Your task to perform on an android device: toggle improve location accuracy Image 0: 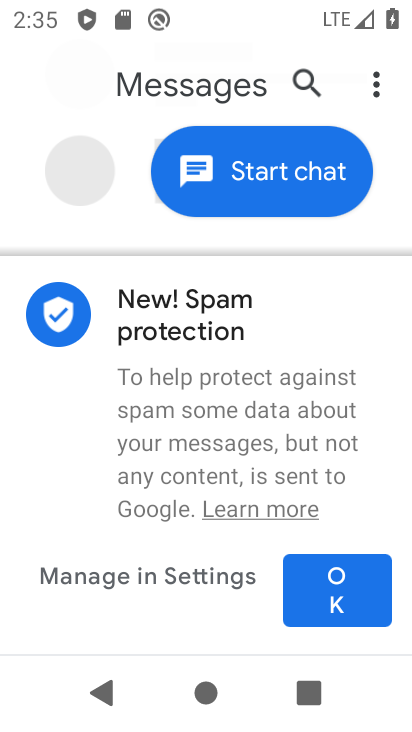
Step 0: press home button
Your task to perform on an android device: toggle improve location accuracy Image 1: 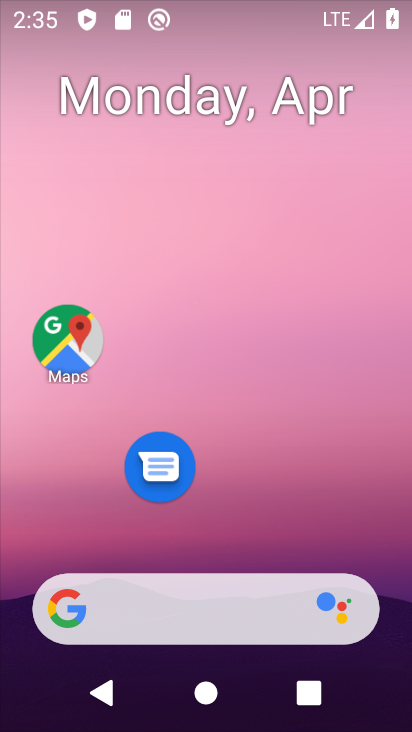
Step 1: drag from (259, 518) to (352, 85)
Your task to perform on an android device: toggle improve location accuracy Image 2: 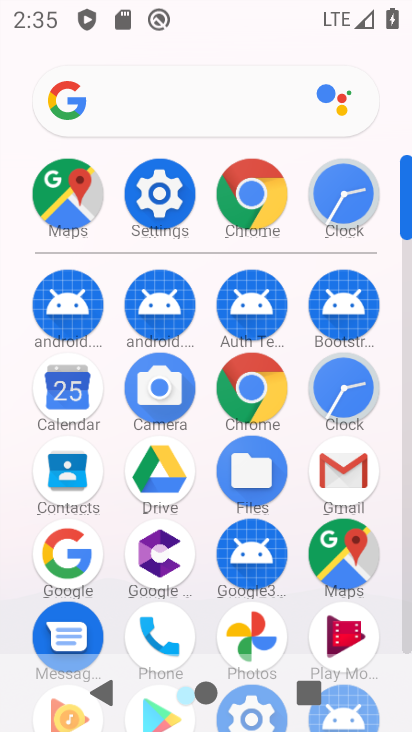
Step 2: click (161, 185)
Your task to perform on an android device: toggle improve location accuracy Image 3: 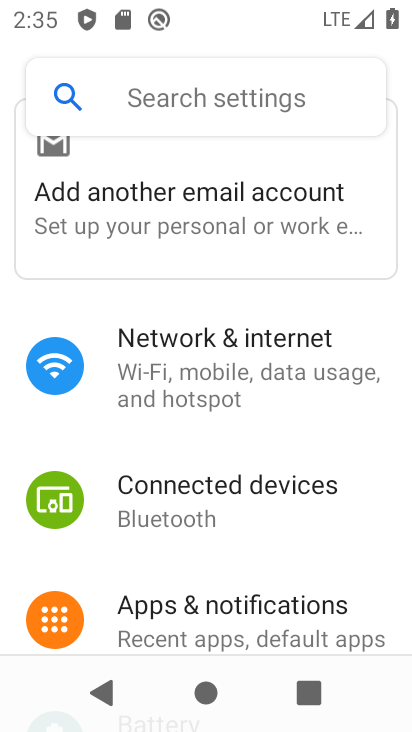
Step 3: drag from (182, 574) to (194, 338)
Your task to perform on an android device: toggle improve location accuracy Image 4: 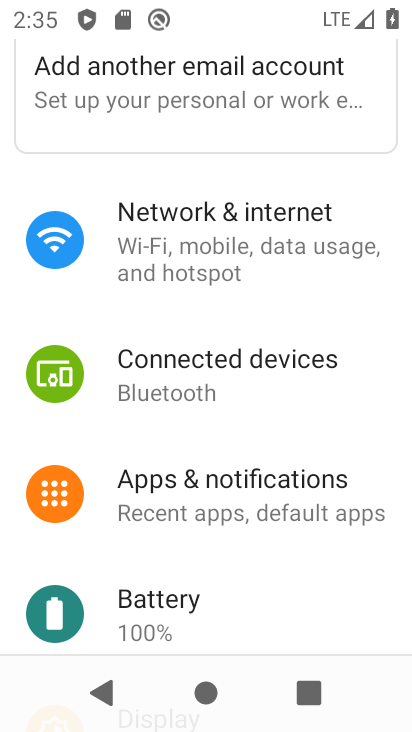
Step 4: drag from (244, 544) to (276, 341)
Your task to perform on an android device: toggle improve location accuracy Image 5: 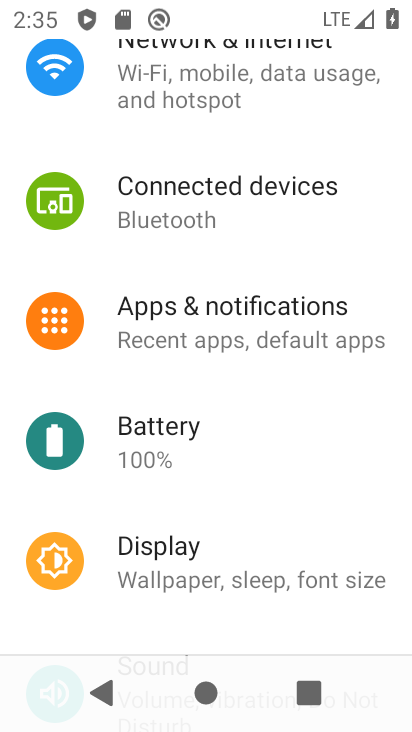
Step 5: drag from (276, 570) to (289, 371)
Your task to perform on an android device: toggle improve location accuracy Image 6: 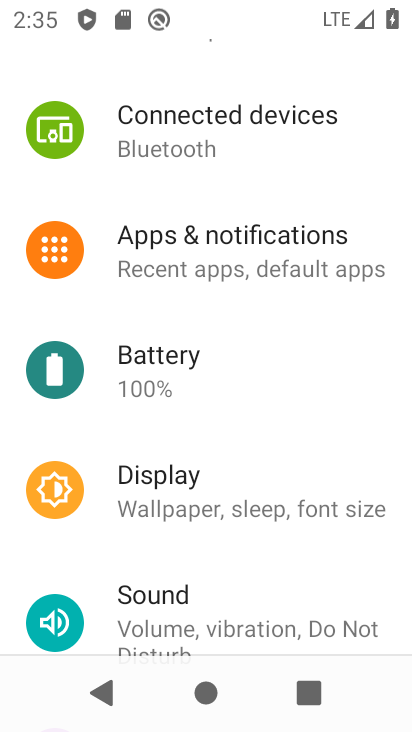
Step 6: drag from (269, 538) to (288, 323)
Your task to perform on an android device: toggle improve location accuracy Image 7: 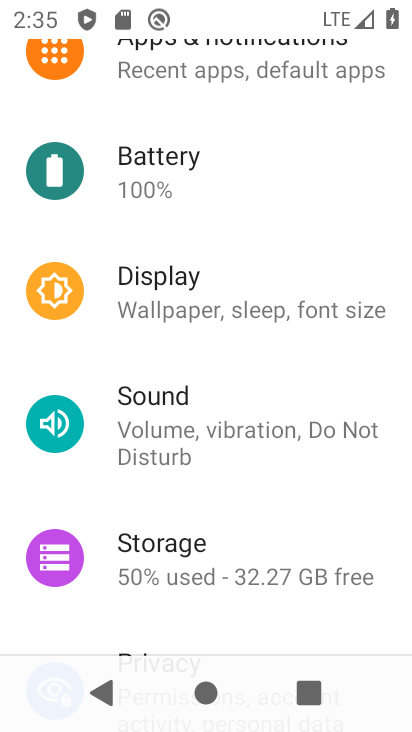
Step 7: drag from (291, 507) to (335, 361)
Your task to perform on an android device: toggle improve location accuracy Image 8: 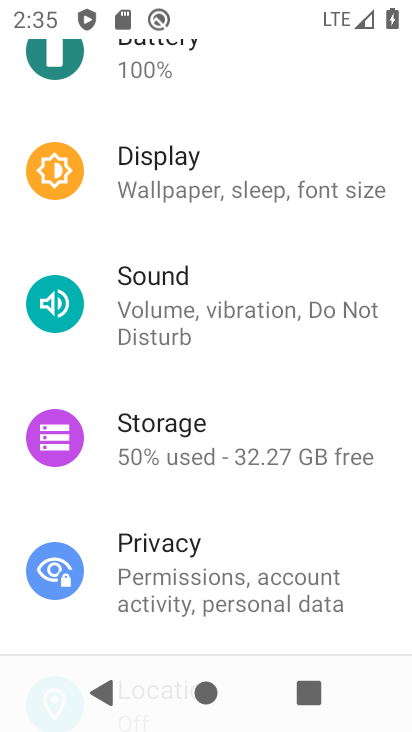
Step 8: drag from (331, 531) to (370, 347)
Your task to perform on an android device: toggle improve location accuracy Image 9: 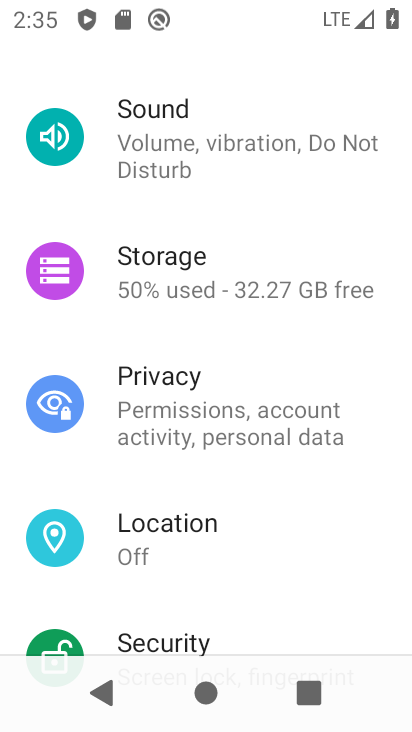
Step 9: click (337, 539)
Your task to perform on an android device: toggle improve location accuracy Image 10: 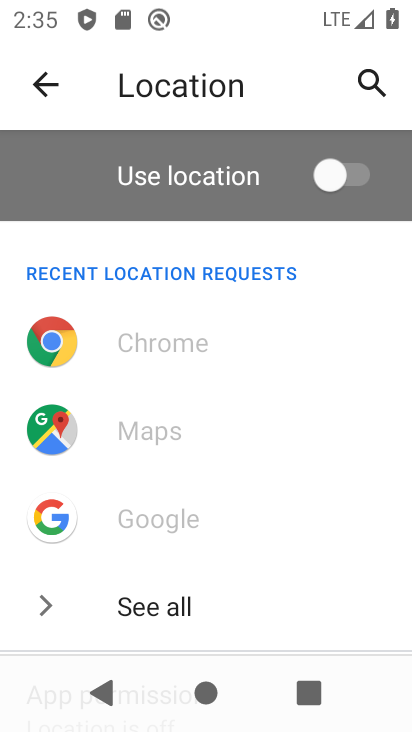
Step 10: drag from (337, 533) to (373, 258)
Your task to perform on an android device: toggle improve location accuracy Image 11: 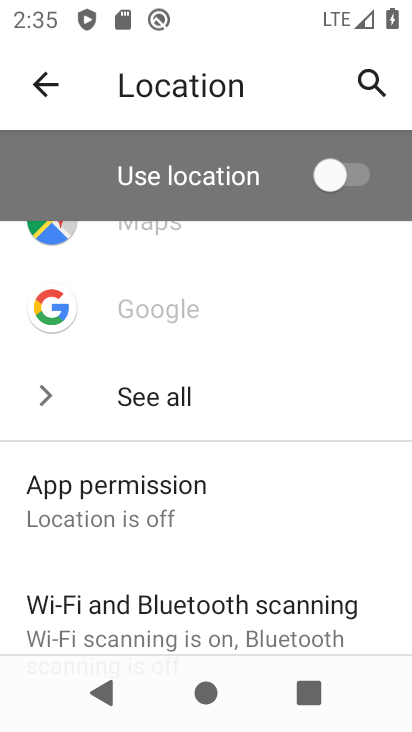
Step 11: drag from (282, 531) to (312, 263)
Your task to perform on an android device: toggle improve location accuracy Image 12: 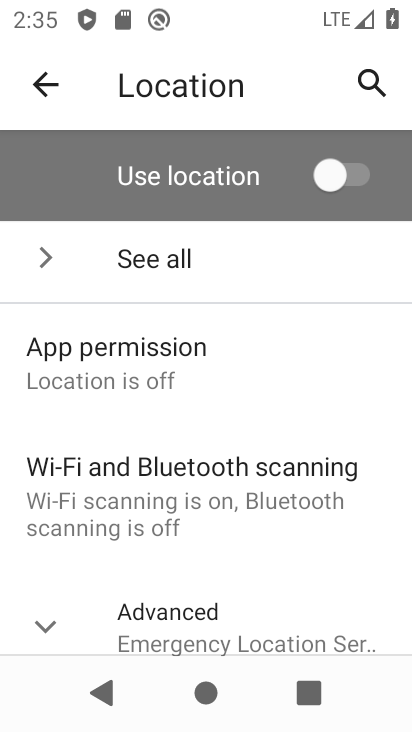
Step 12: click (223, 628)
Your task to perform on an android device: toggle improve location accuracy Image 13: 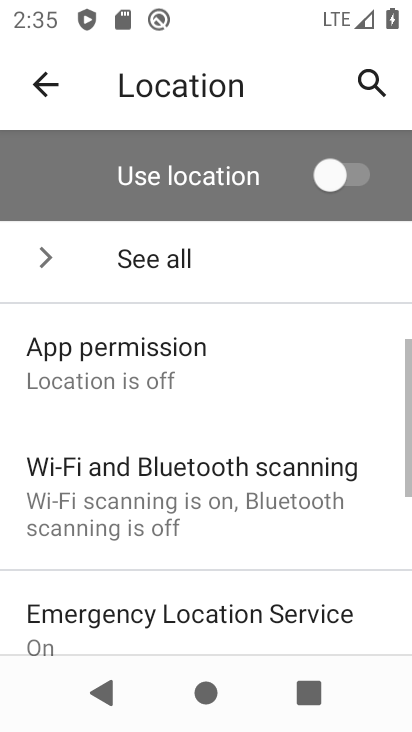
Step 13: drag from (226, 615) to (284, 356)
Your task to perform on an android device: toggle improve location accuracy Image 14: 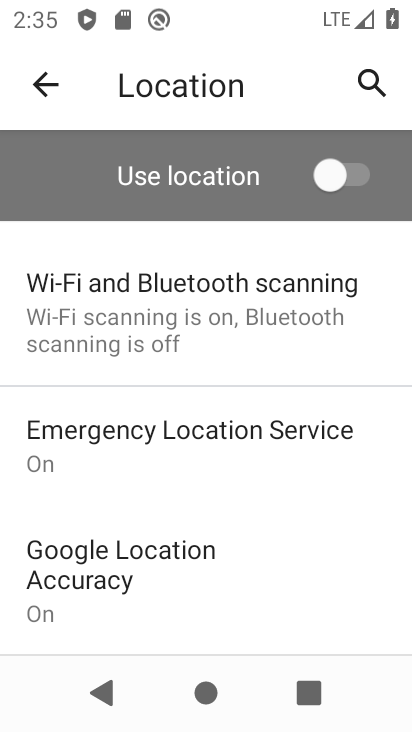
Step 14: click (239, 591)
Your task to perform on an android device: toggle improve location accuracy Image 15: 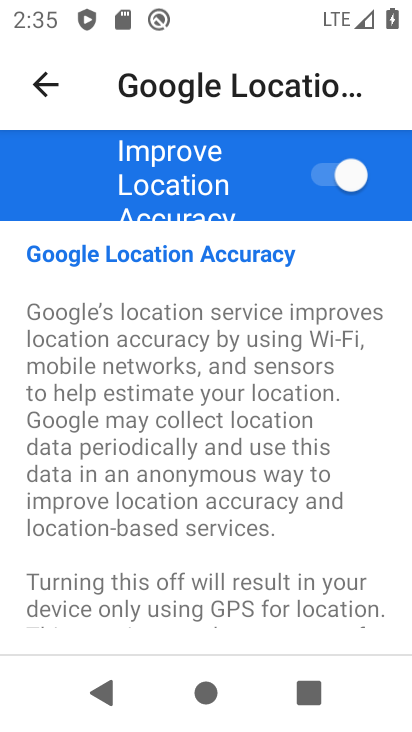
Step 15: click (332, 173)
Your task to perform on an android device: toggle improve location accuracy Image 16: 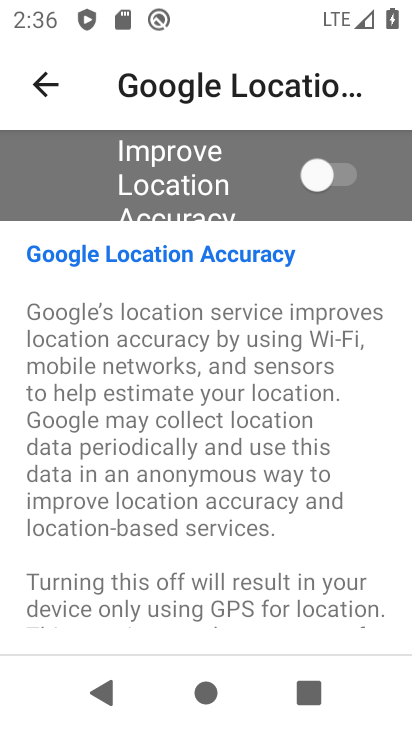
Step 16: task complete